Your task to perform on an android device: Open Google Chrome and click the shortcut for Amazon.com Image 0: 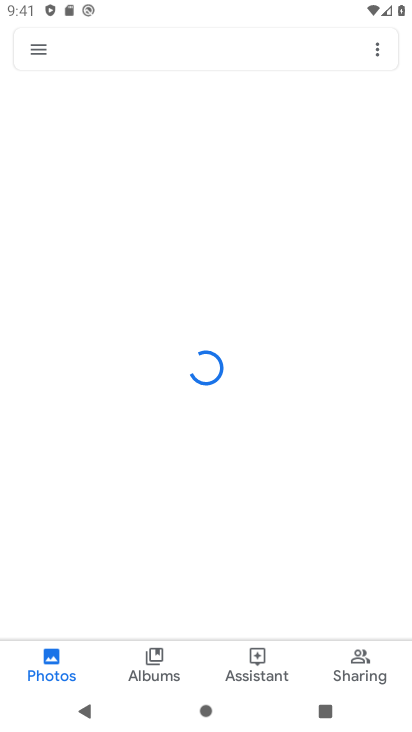
Step 0: press home button
Your task to perform on an android device: Open Google Chrome and click the shortcut for Amazon.com Image 1: 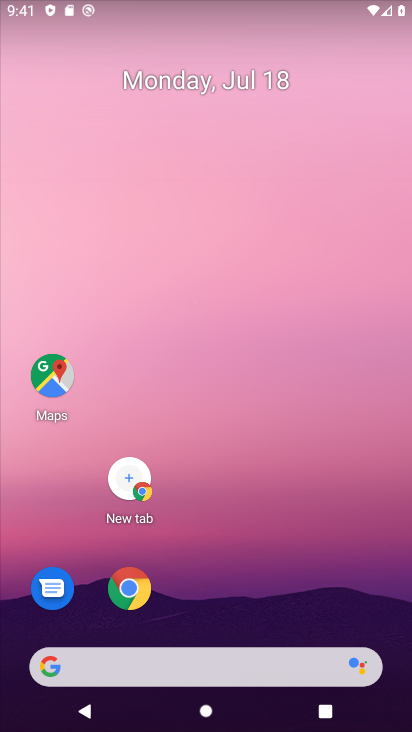
Step 1: click (132, 590)
Your task to perform on an android device: Open Google Chrome and click the shortcut for Amazon.com Image 2: 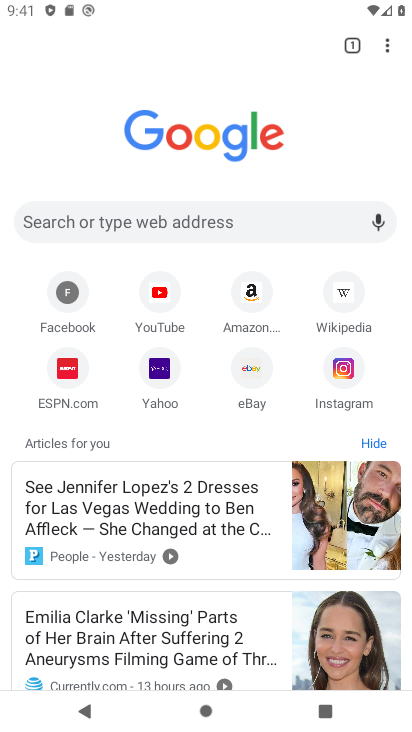
Step 2: click (254, 280)
Your task to perform on an android device: Open Google Chrome and click the shortcut for Amazon.com Image 3: 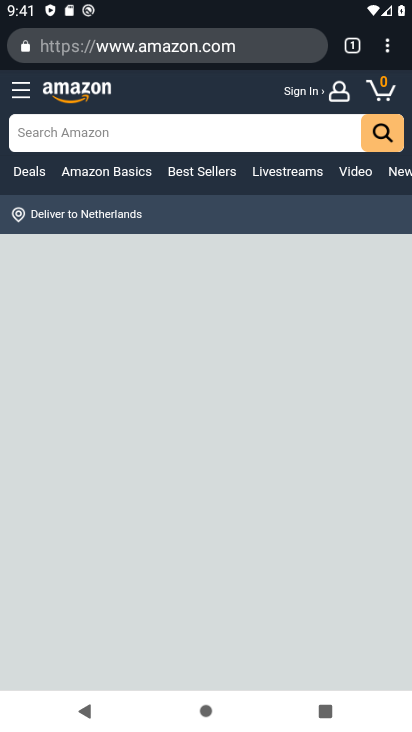
Step 3: task complete